Your task to perform on an android device: show emergency info Image 0: 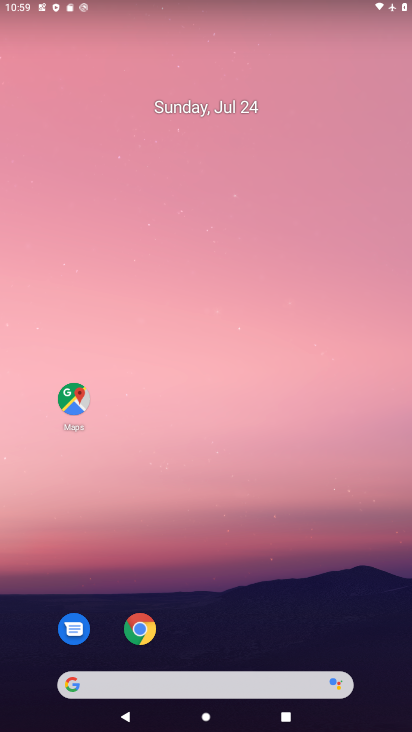
Step 0: drag from (264, 644) to (317, 13)
Your task to perform on an android device: show emergency info Image 1: 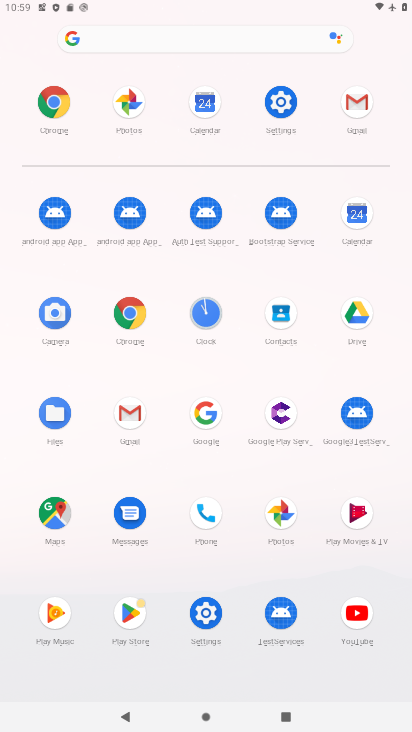
Step 1: click (284, 112)
Your task to perform on an android device: show emergency info Image 2: 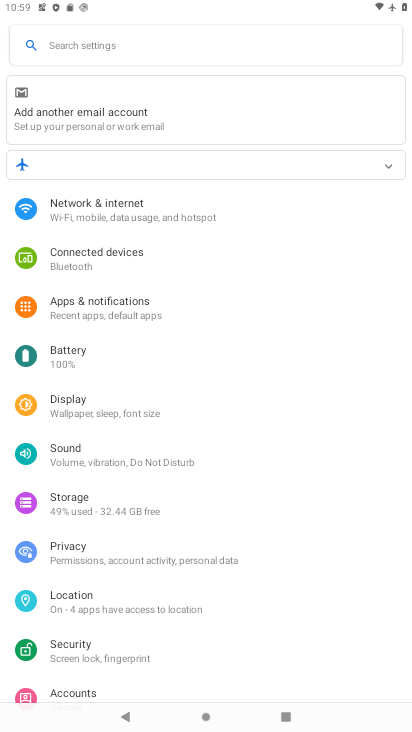
Step 2: drag from (120, 607) to (161, 134)
Your task to perform on an android device: show emergency info Image 3: 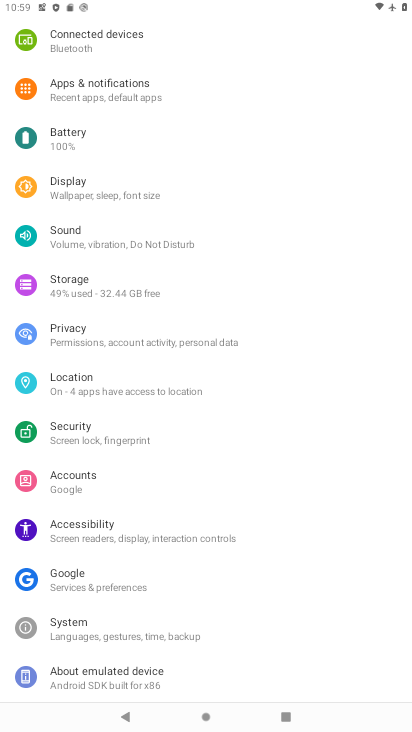
Step 3: click (171, 674)
Your task to perform on an android device: show emergency info Image 4: 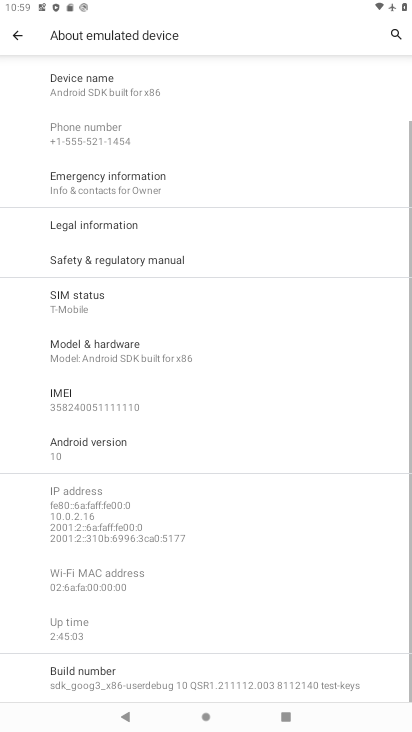
Step 4: task complete